Your task to perform on an android device: turn on translation in the chrome app Image 0: 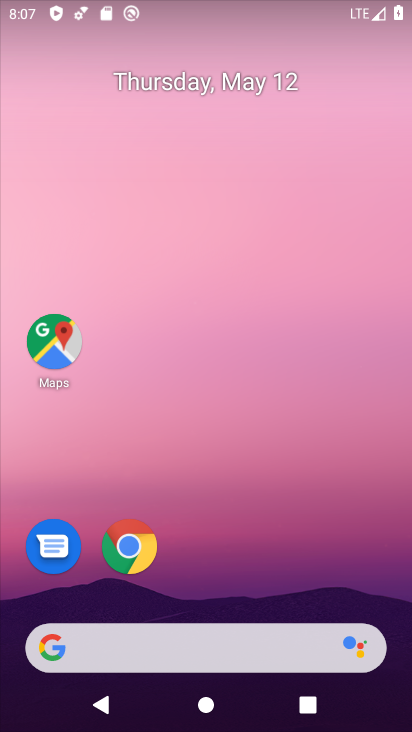
Step 0: click (116, 541)
Your task to perform on an android device: turn on translation in the chrome app Image 1: 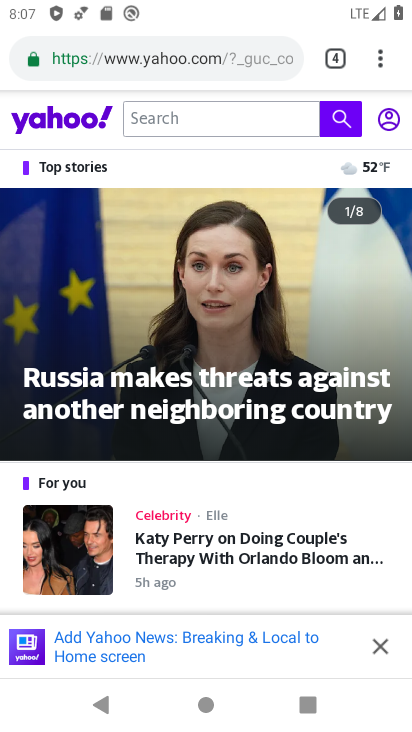
Step 1: click (375, 60)
Your task to perform on an android device: turn on translation in the chrome app Image 2: 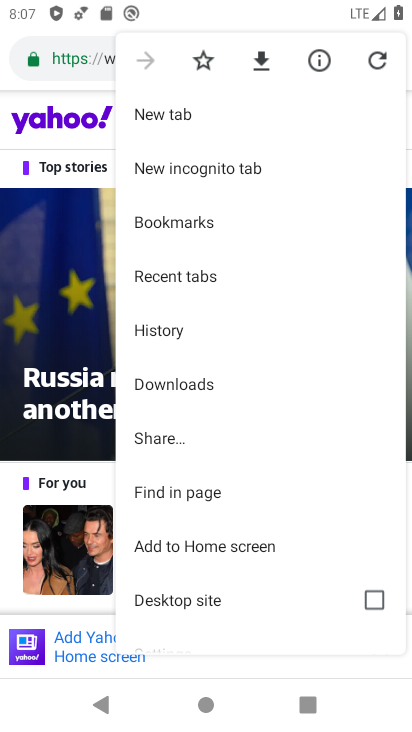
Step 2: drag from (257, 555) to (263, 78)
Your task to perform on an android device: turn on translation in the chrome app Image 3: 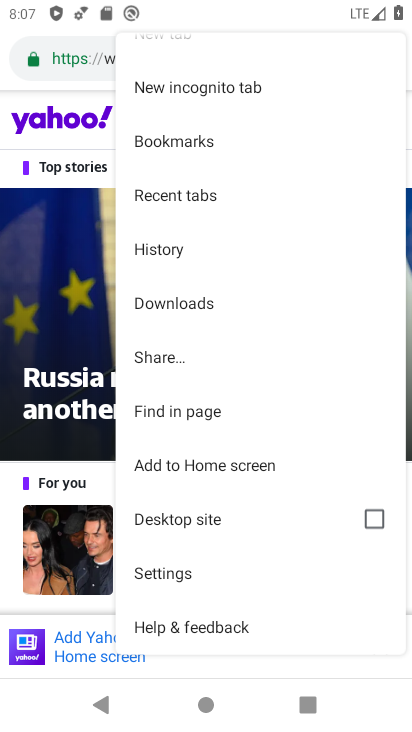
Step 3: click (156, 572)
Your task to perform on an android device: turn on translation in the chrome app Image 4: 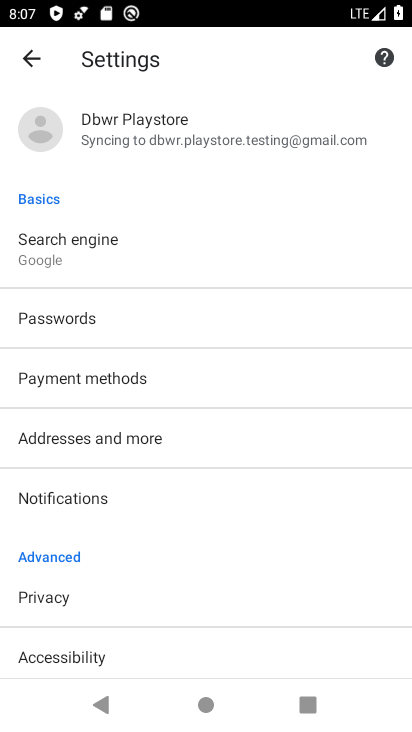
Step 4: drag from (185, 610) to (176, 223)
Your task to perform on an android device: turn on translation in the chrome app Image 5: 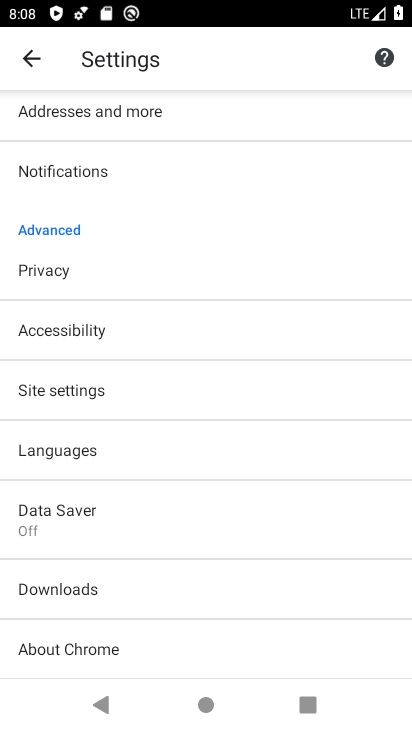
Step 5: click (91, 392)
Your task to perform on an android device: turn on translation in the chrome app Image 6: 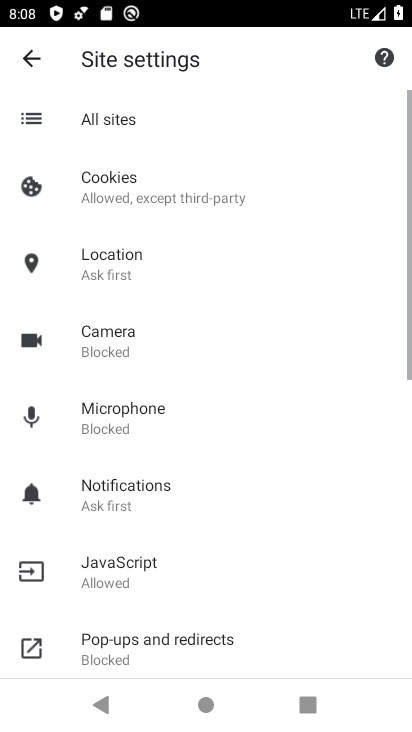
Step 6: click (24, 47)
Your task to perform on an android device: turn on translation in the chrome app Image 7: 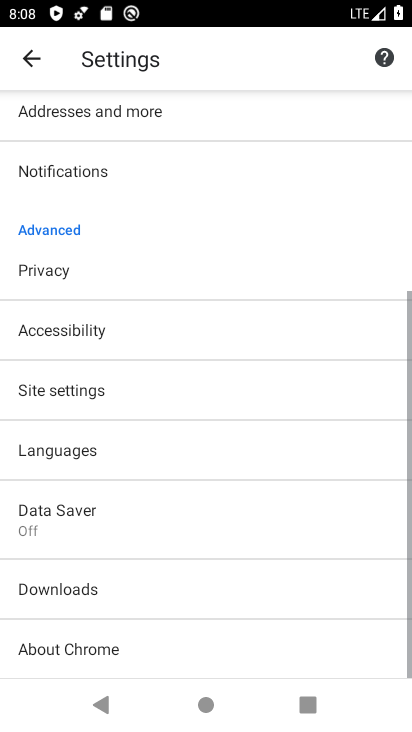
Step 7: click (85, 455)
Your task to perform on an android device: turn on translation in the chrome app Image 8: 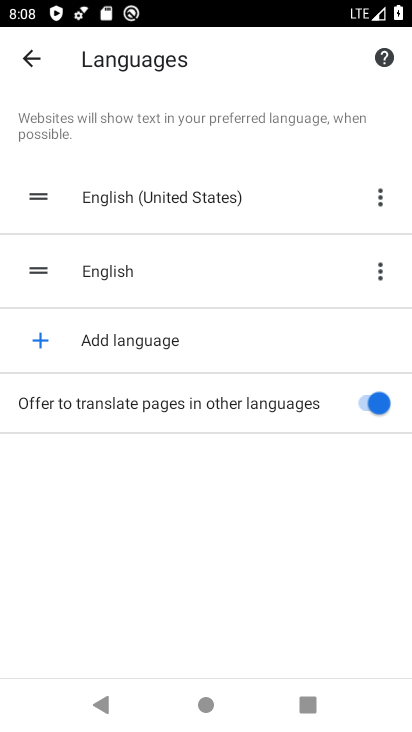
Step 8: task complete